Your task to perform on an android device: Open settings Image 0: 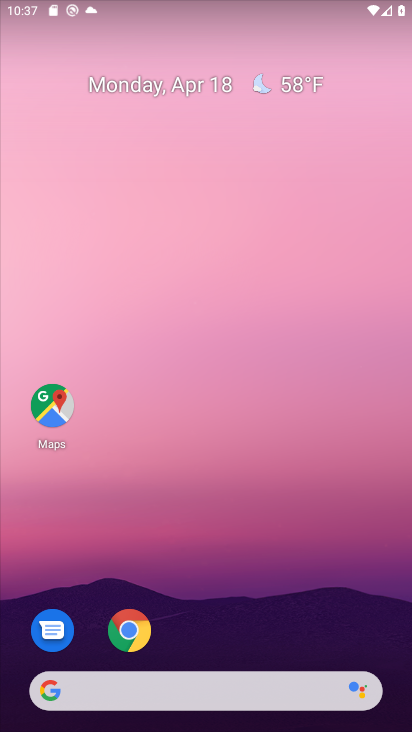
Step 0: drag from (224, 645) to (337, 9)
Your task to perform on an android device: Open settings Image 1: 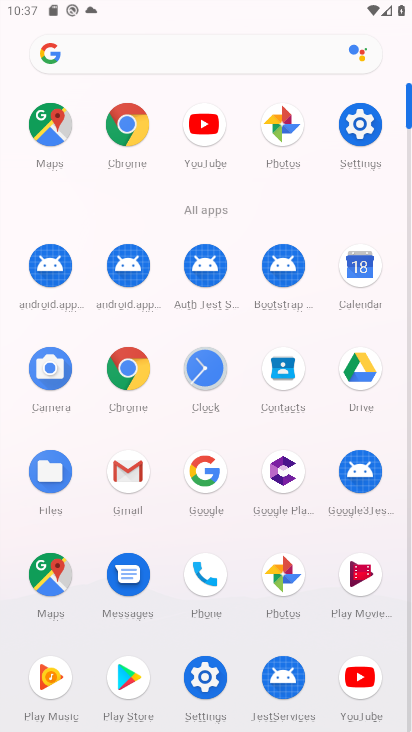
Step 1: click (360, 127)
Your task to perform on an android device: Open settings Image 2: 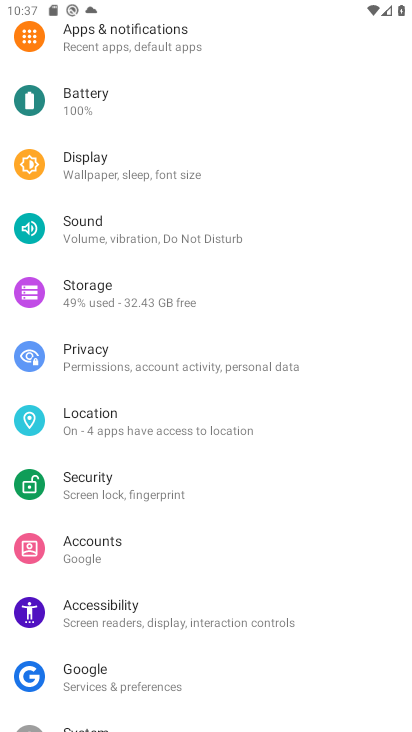
Step 2: task complete